Your task to perform on an android device: Open Amazon Image 0: 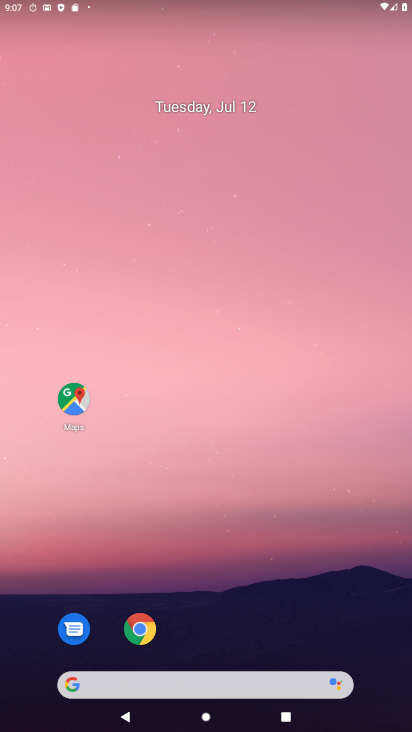
Step 0: drag from (251, 715) to (159, 135)
Your task to perform on an android device: Open Amazon Image 1: 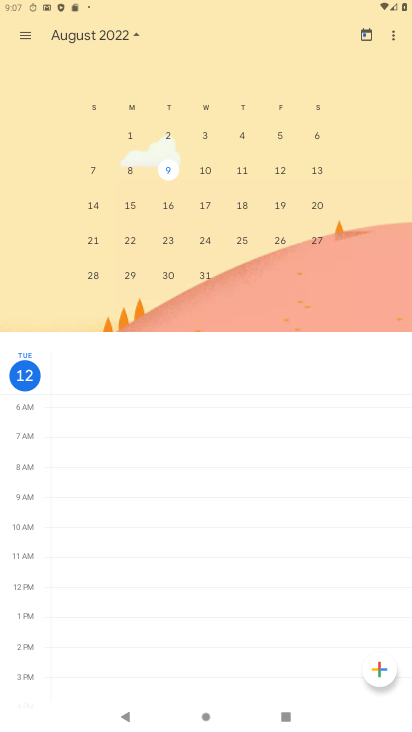
Step 1: press back button
Your task to perform on an android device: Open Amazon Image 2: 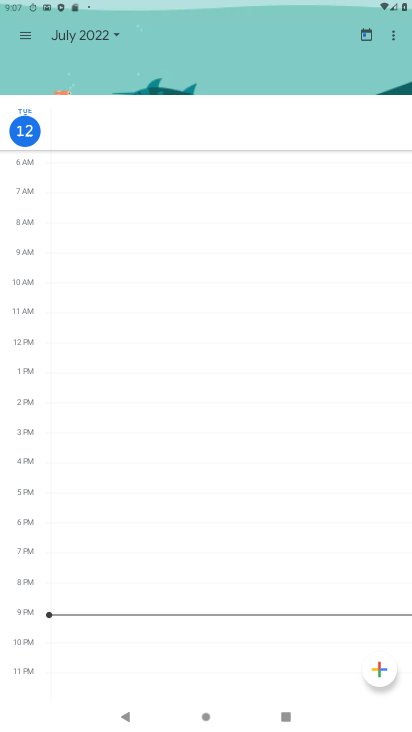
Step 2: press home button
Your task to perform on an android device: Open Amazon Image 3: 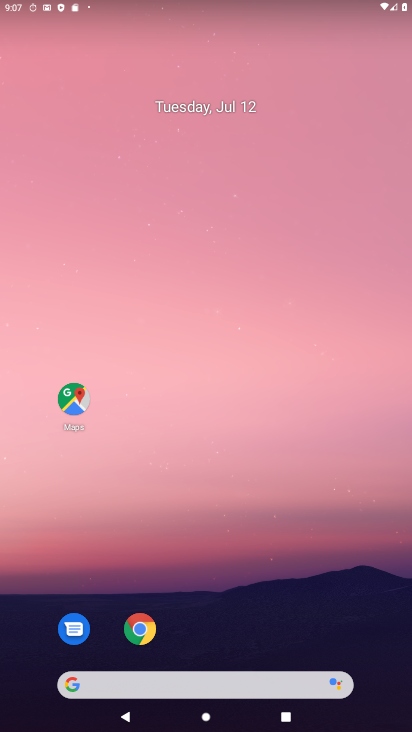
Step 3: drag from (240, 683) to (223, 95)
Your task to perform on an android device: Open Amazon Image 4: 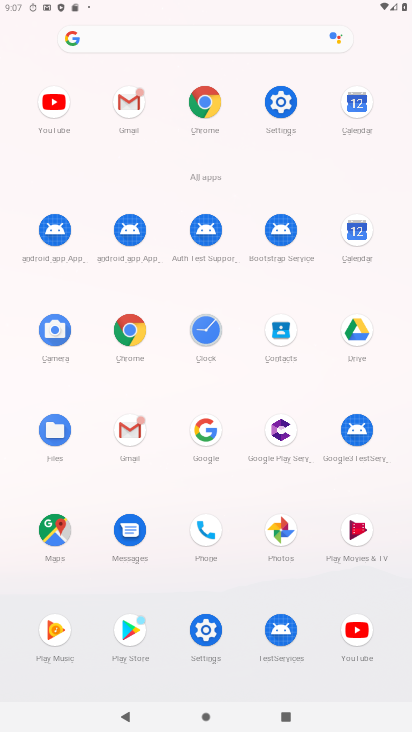
Step 4: click (206, 106)
Your task to perform on an android device: Open Amazon Image 5: 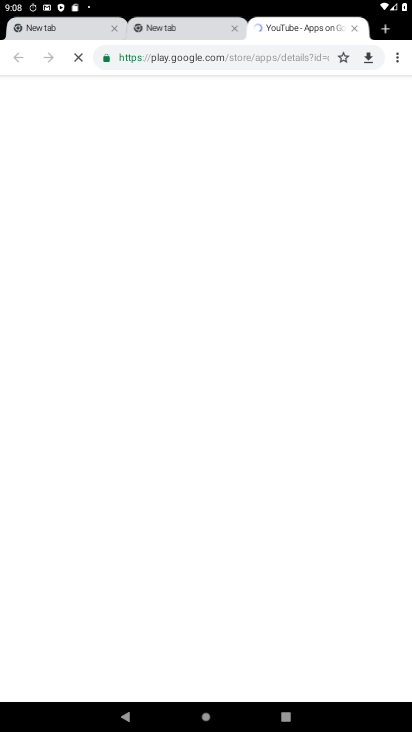
Step 5: click (399, 58)
Your task to perform on an android device: Open Amazon Image 6: 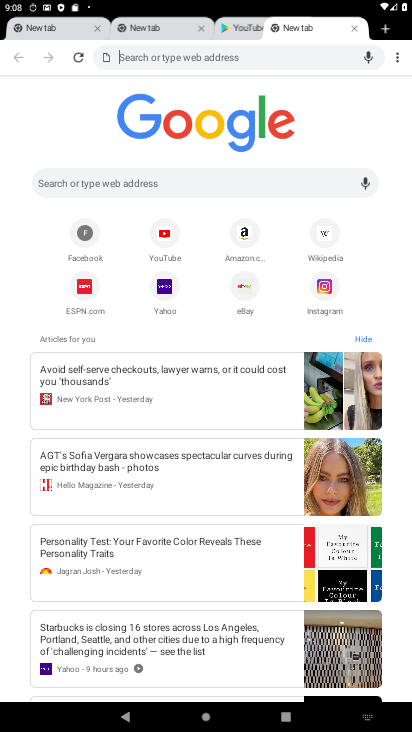
Step 6: click (243, 237)
Your task to perform on an android device: Open Amazon Image 7: 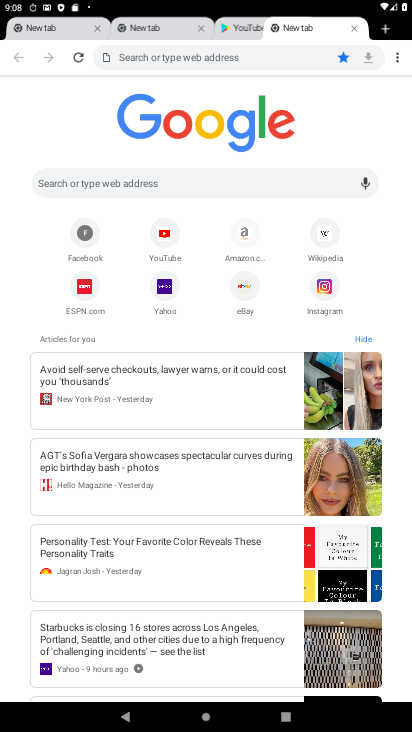
Step 7: click (243, 238)
Your task to perform on an android device: Open Amazon Image 8: 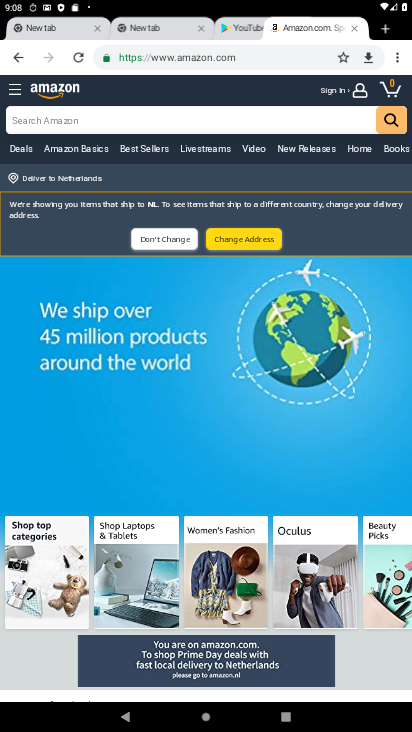
Step 8: task complete